Your task to perform on an android device: Open the calendar and show me this week's events? Image 0: 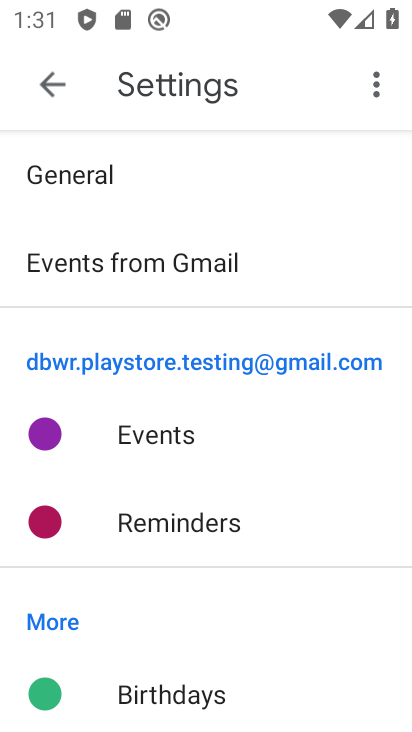
Step 0: drag from (224, 643) to (222, 449)
Your task to perform on an android device: Open the calendar and show me this week's events? Image 1: 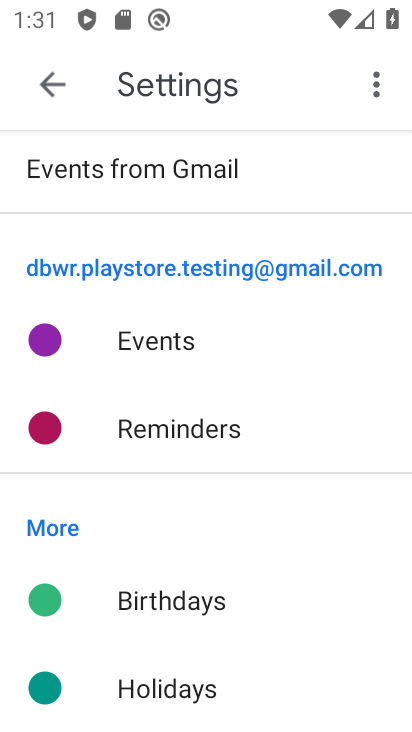
Step 1: press home button
Your task to perform on an android device: Open the calendar and show me this week's events? Image 2: 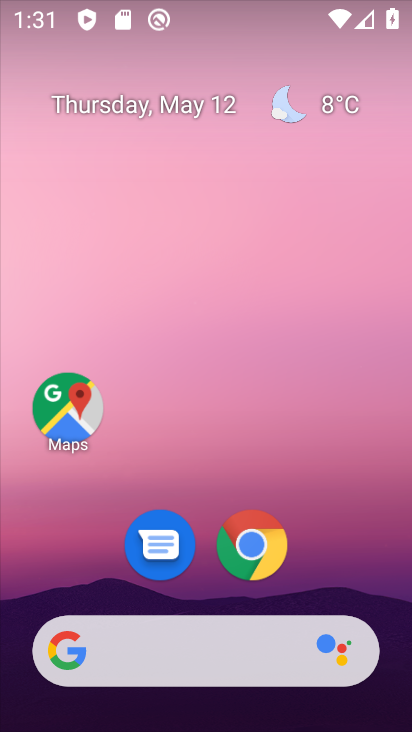
Step 2: drag from (202, 579) to (204, 203)
Your task to perform on an android device: Open the calendar and show me this week's events? Image 3: 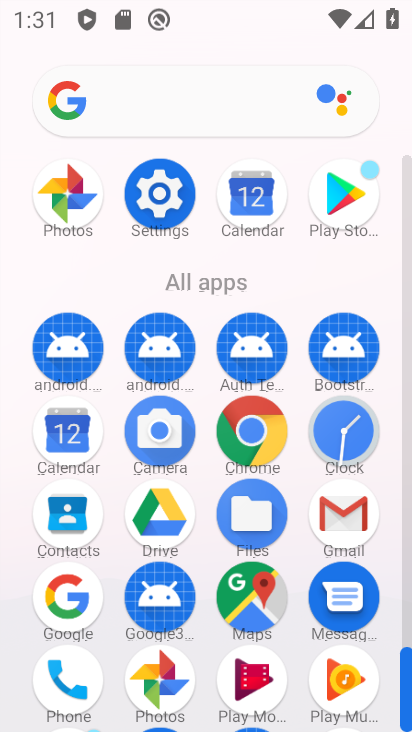
Step 3: click (60, 426)
Your task to perform on an android device: Open the calendar and show me this week's events? Image 4: 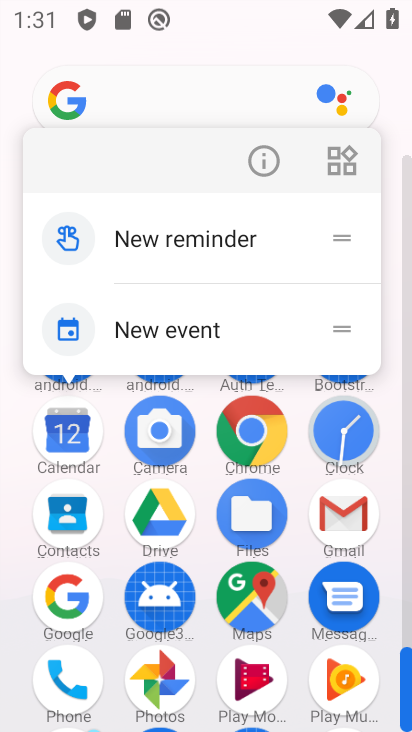
Step 4: click (265, 161)
Your task to perform on an android device: Open the calendar and show me this week's events? Image 5: 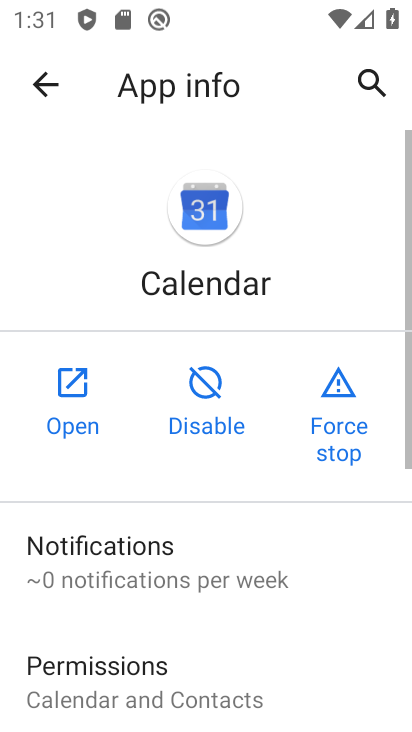
Step 5: click (70, 405)
Your task to perform on an android device: Open the calendar and show me this week's events? Image 6: 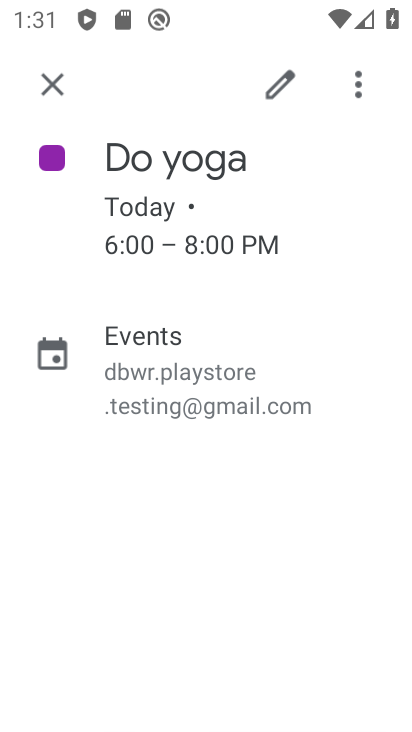
Step 6: click (57, 80)
Your task to perform on an android device: Open the calendar and show me this week's events? Image 7: 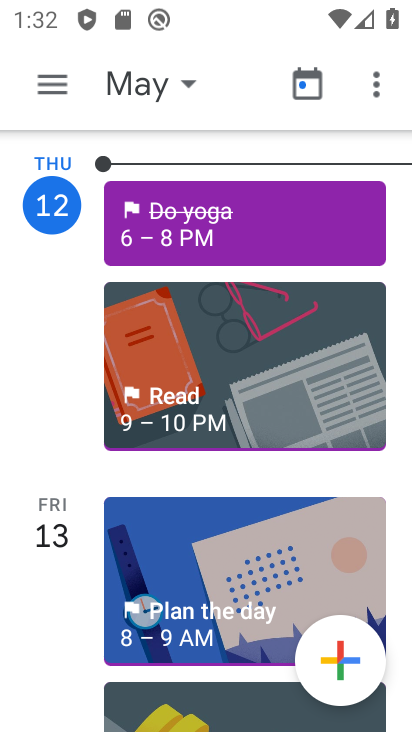
Step 7: click (177, 67)
Your task to perform on an android device: Open the calendar and show me this week's events? Image 8: 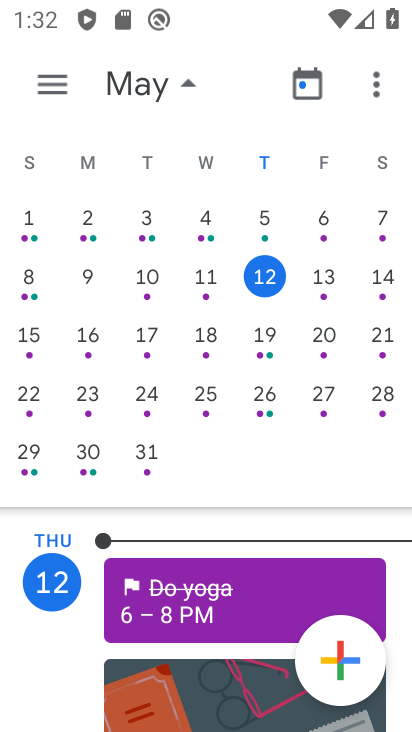
Step 8: click (154, 95)
Your task to perform on an android device: Open the calendar and show me this week's events? Image 9: 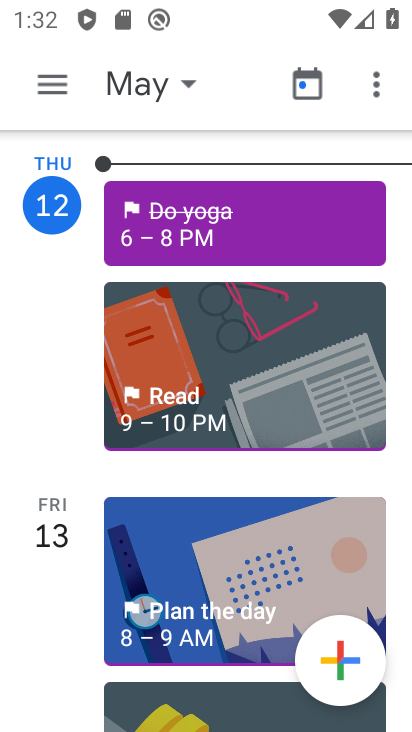
Step 9: click (139, 80)
Your task to perform on an android device: Open the calendar and show me this week's events? Image 10: 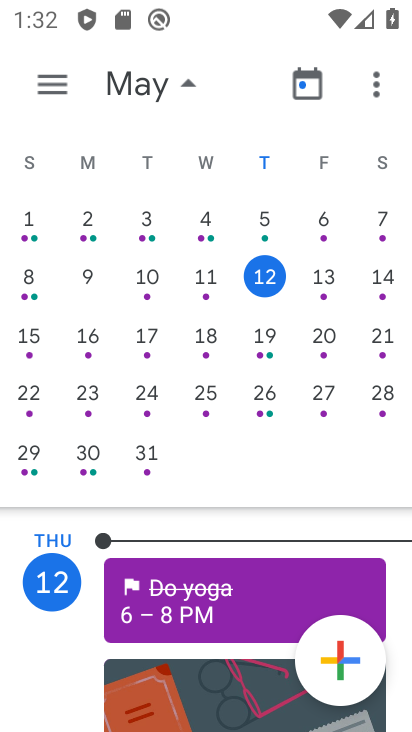
Step 10: click (322, 286)
Your task to perform on an android device: Open the calendar and show me this week's events? Image 11: 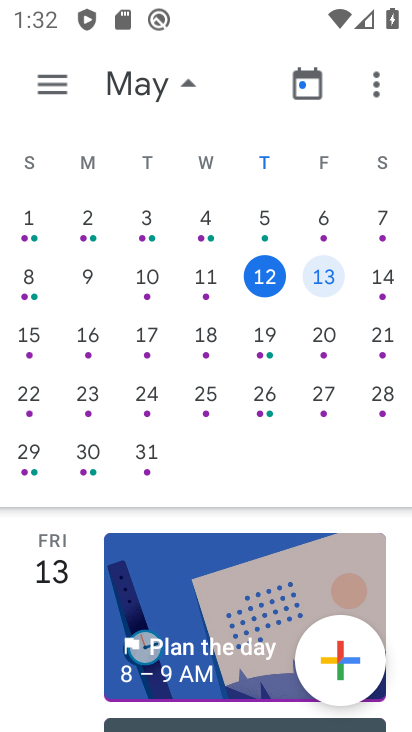
Step 11: task complete